Your task to perform on an android device: When is my next appointment? Image 0: 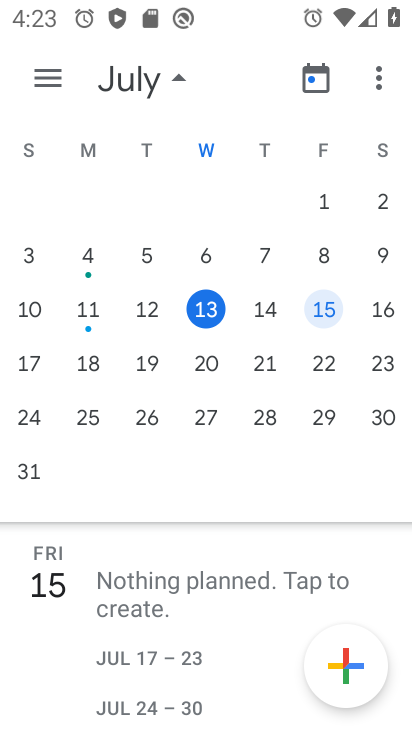
Step 0: drag from (140, 666) to (139, 495)
Your task to perform on an android device: When is my next appointment? Image 1: 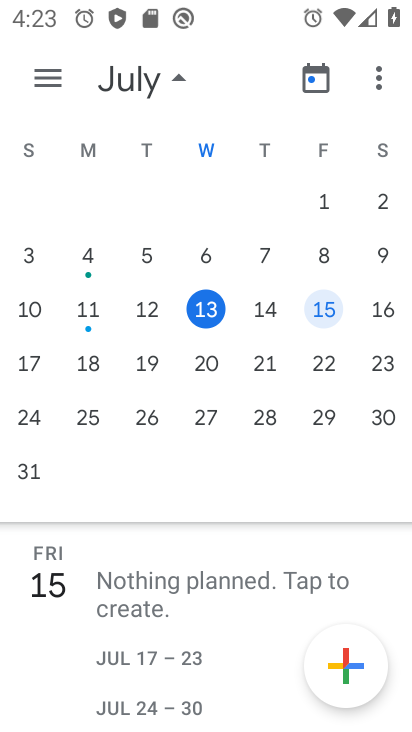
Step 1: task complete